Your task to perform on an android device: Open Youtube and go to "Your channel" Image 0: 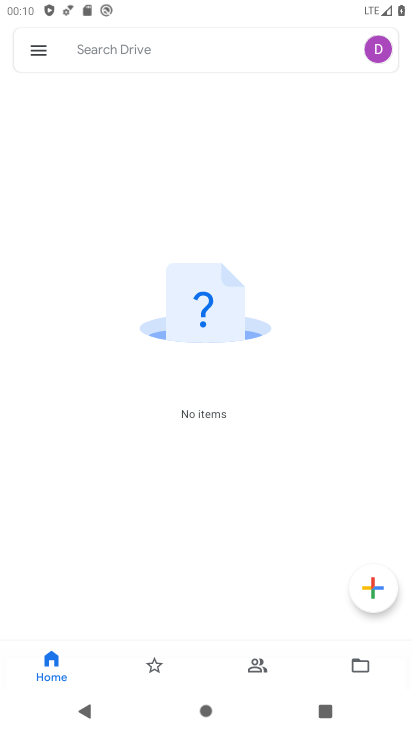
Step 0: press back button
Your task to perform on an android device: Open Youtube and go to "Your channel" Image 1: 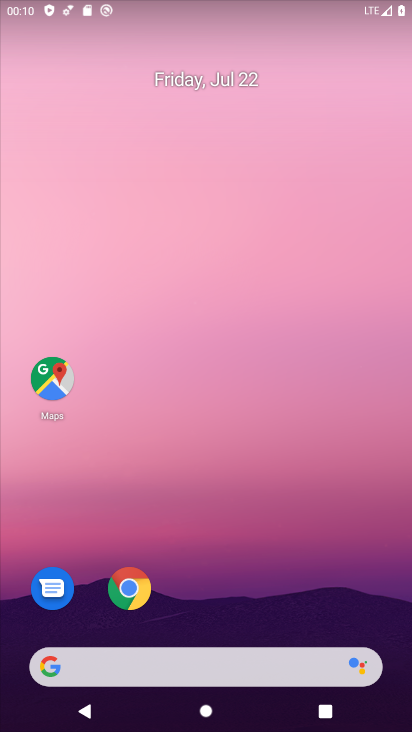
Step 1: drag from (254, 495) to (302, 8)
Your task to perform on an android device: Open Youtube and go to "Your channel" Image 2: 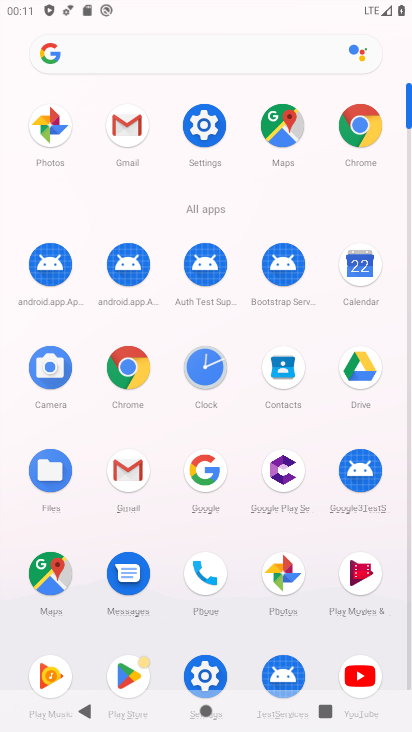
Step 2: click (354, 662)
Your task to perform on an android device: Open Youtube and go to "Your channel" Image 3: 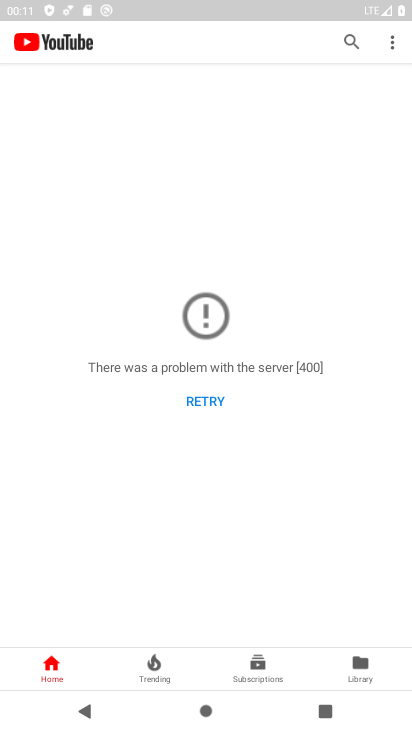
Step 3: click (353, 668)
Your task to perform on an android device: Open Youtube and go to "Your channel" Image 4: 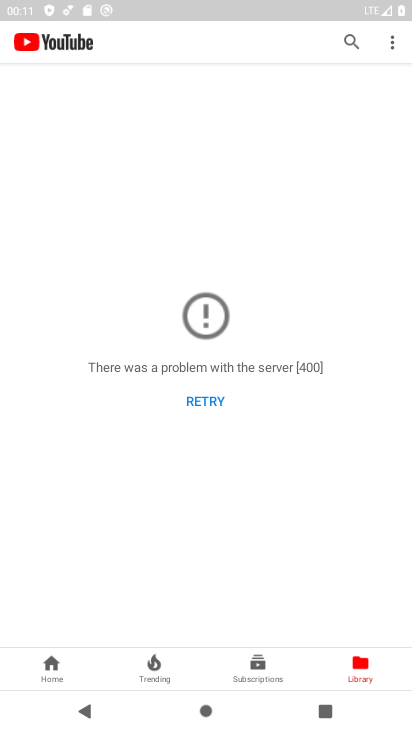
Step 4: task complete